Your task to perform on an android device: Go to sound settings Image 0: 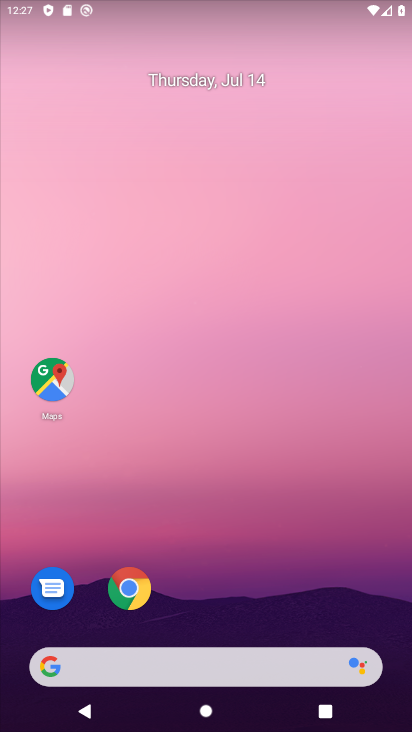
Step 0: drag from (136, 575) to (164, 236)
Your task to perform on an android device: Go to sound settings Image 1: 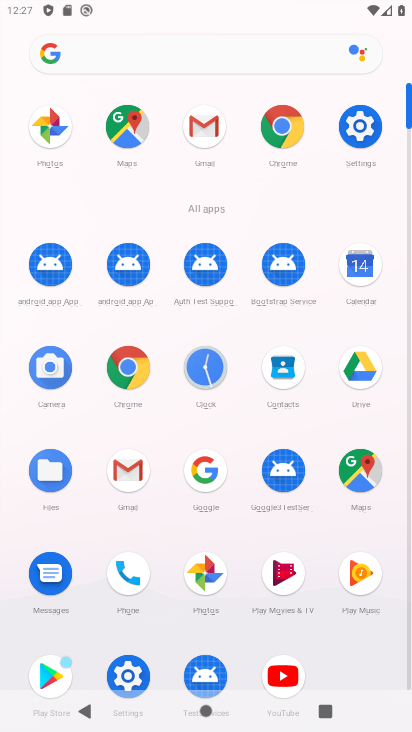
Step 1: click (364, 118)
Your task to perform on an android device: Go to sound settings Image 2: 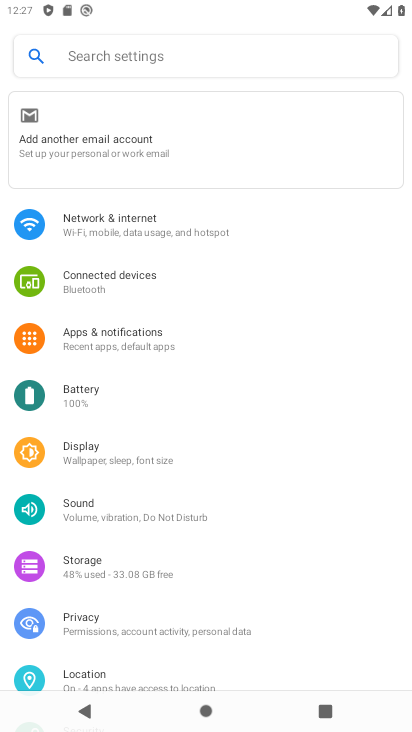
Step 2: click (120, 512)
Your task to perform on an android device: Go to sound settings Image 3: 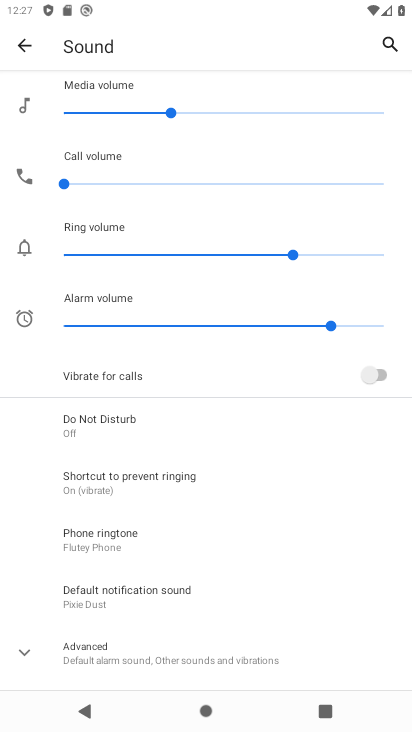
Step 3: task complete